Your task to perform on an android device: change the clock display to digital Image 0: 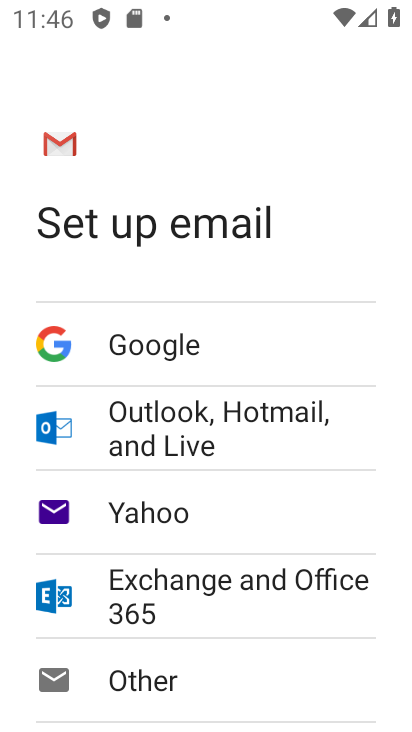
Step 0: press home button
Your task to perform on an android device: change the clock display to digital Image 1: 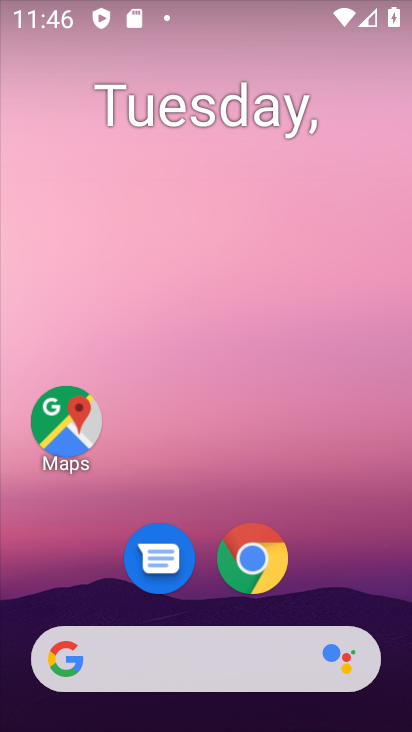
Step 1: drag from (295, 632) to (329, 19)
Your task to perform on an android device: change the clock display to digital Image 2: 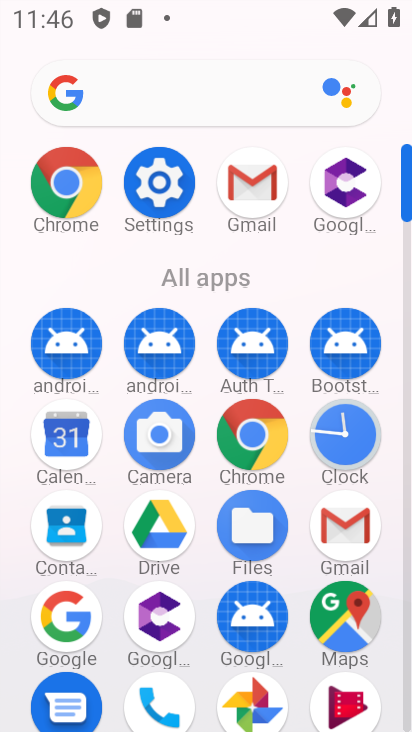
Step 2: click (341, 433)
Your task to perform on an android device: change the clock display to digital Image 3: 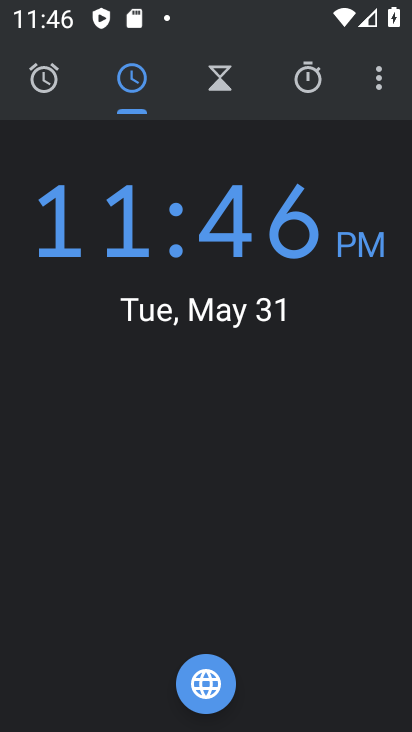
Step 3: click (377, 91)
Your task to perform on an android device: change the clock display to digital Image 4: 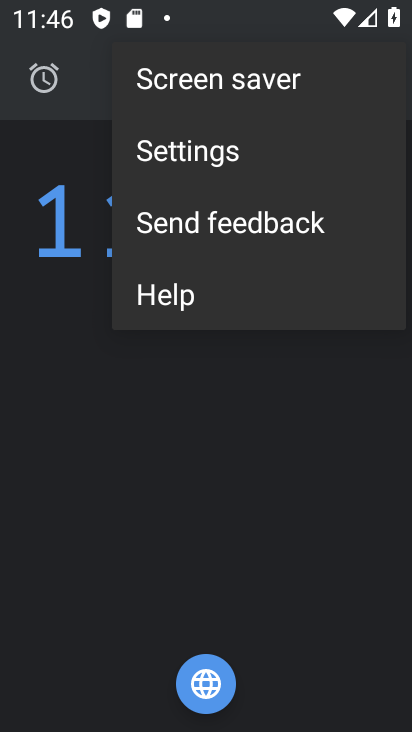
Step 4: click (261, 158)
Your task to perform on an android device: change the clock display to digital Image 5: 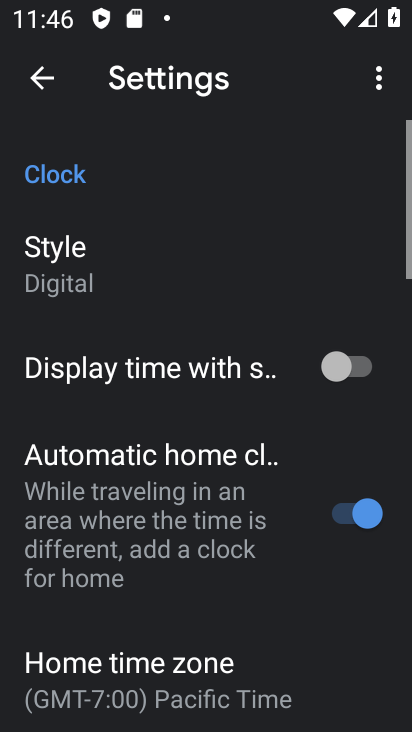
Step 5: click (145, 260)
Your task to perform on an android device: change the clock display to digital Image 6: 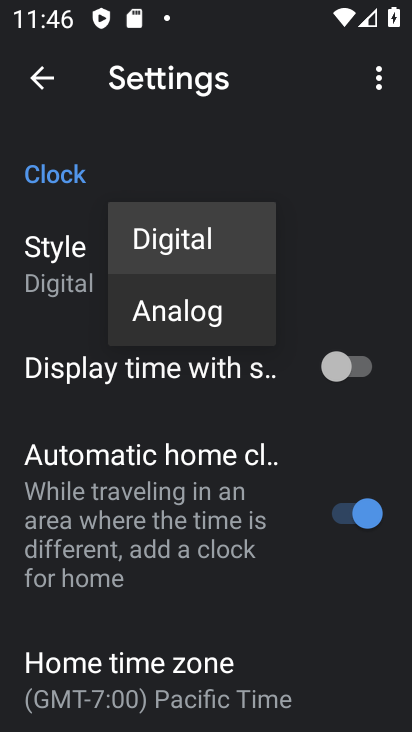
Step 6: task complete